Your task to perform on an android device: toggle pop-ups in chrome Image 0: 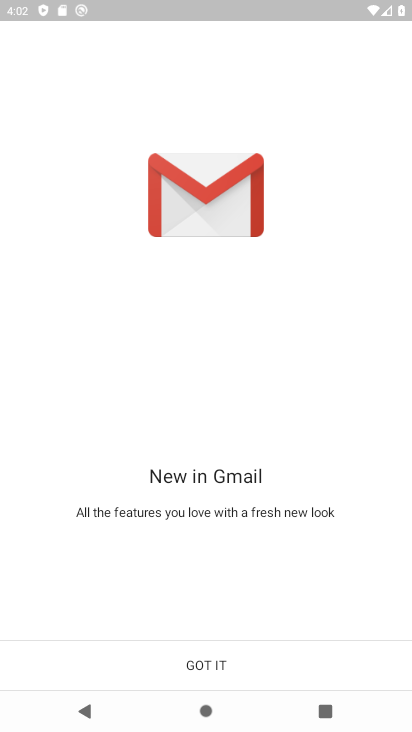
Step 0: press home button
Your task to perform on an android device: toggle pop-ups in chrome Image 1: 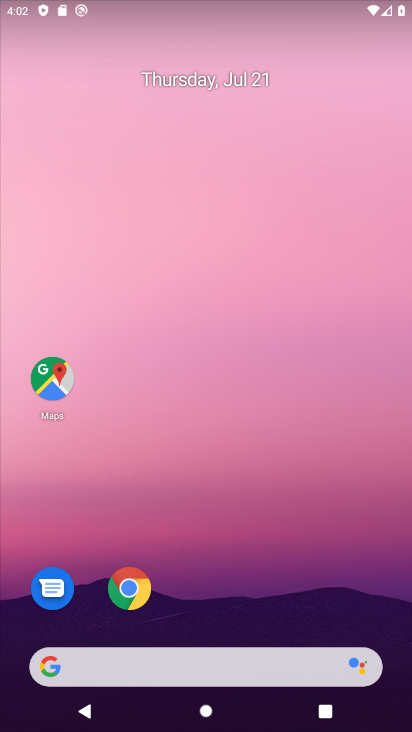
Step 1: click (128, 581)
Your task to perform on an android device: toggle pop-ups in chrome Image 2: 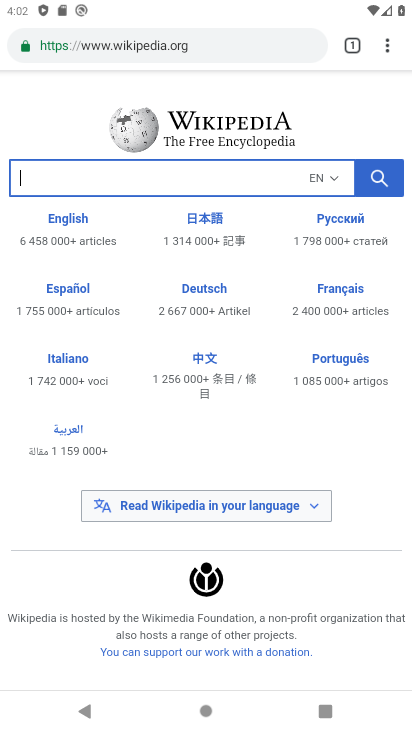
Step 2: drag from (389, 49) to (231, 502)
Your task to perform on an android device: toggle pop-ups in chrome Image 3: 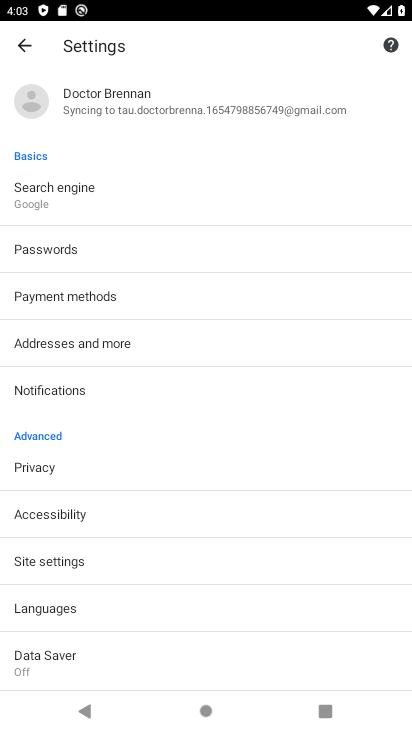
Step 3: click (44, 565)
Your task to perform on an android device: toggle pop-ups in chrome Image 4: 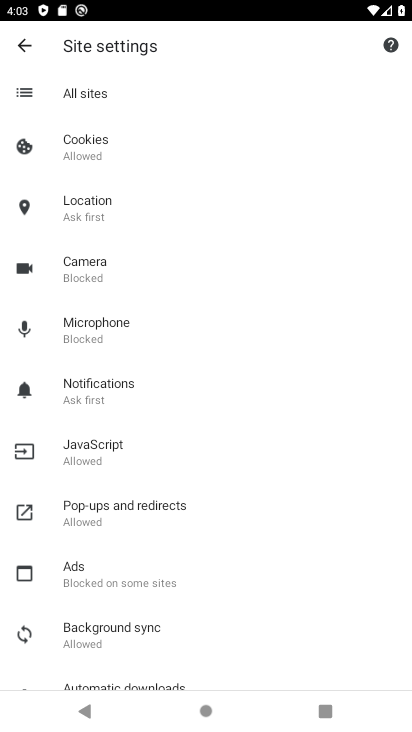
Step 4: click (91, 511)
Your task to perform on an android device: toggle pop-ups in chrome Image 5: 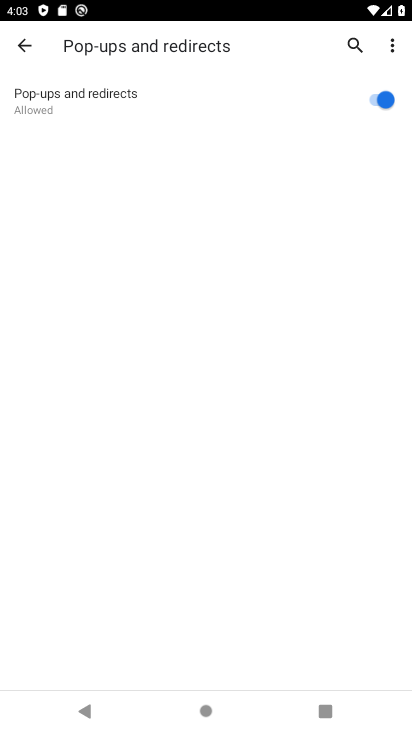
Step 5: task complete